Your task to perform on an android device: toggle improve location accuracy Image 0: 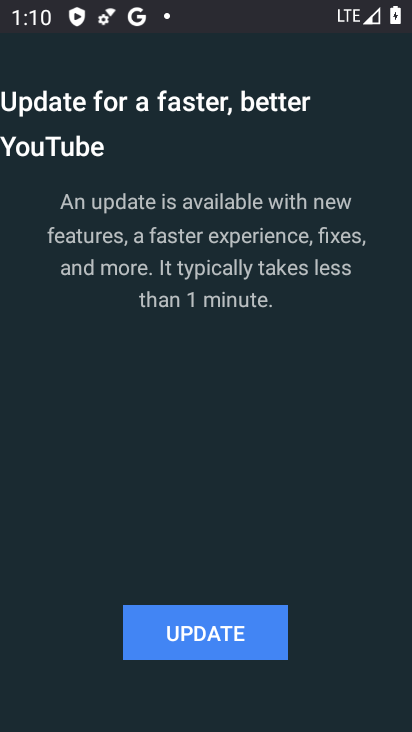
Step 0: press home button
Your task to perform on an android device: toggle improve location accuracy Image 1: 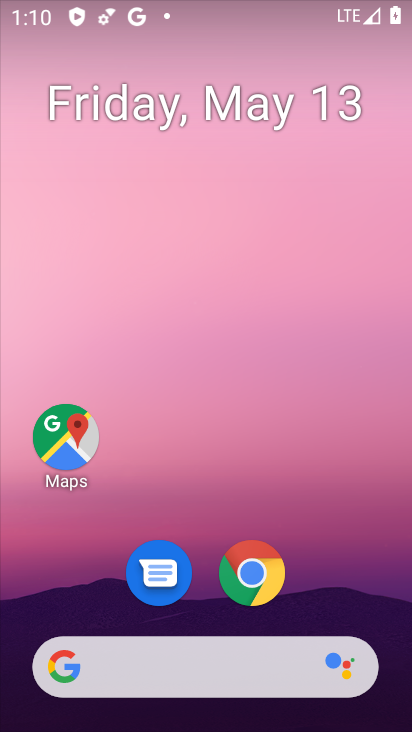
Step 1: drag from (197, 614) to (258, 20)
Your task to perform on an android device: toggle improve location accuracy Image 2: 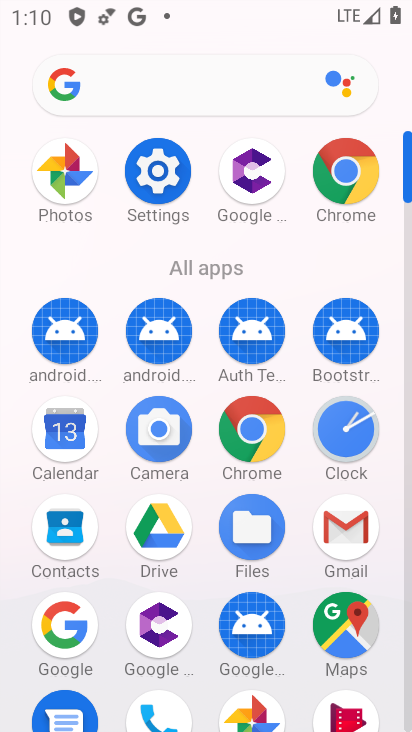
Step 2: click (151, 175)
Your task to perform on an android device: toggle improve location accuracy Image 3: 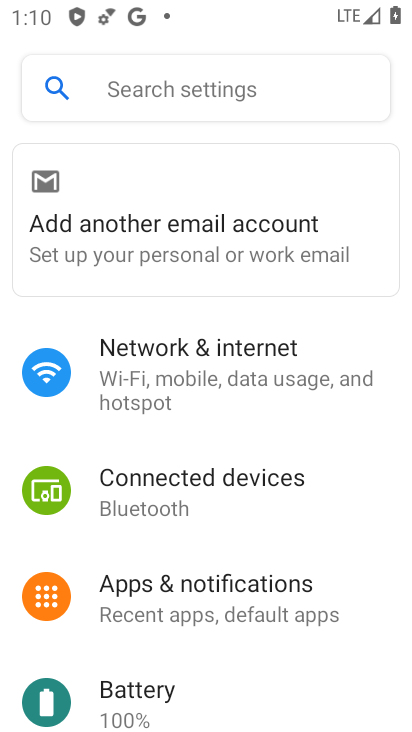
Step 3: drag from (191, 669) to (204, 306)
Your task to perform on an android device: toggle improve location accuracy Image 4: 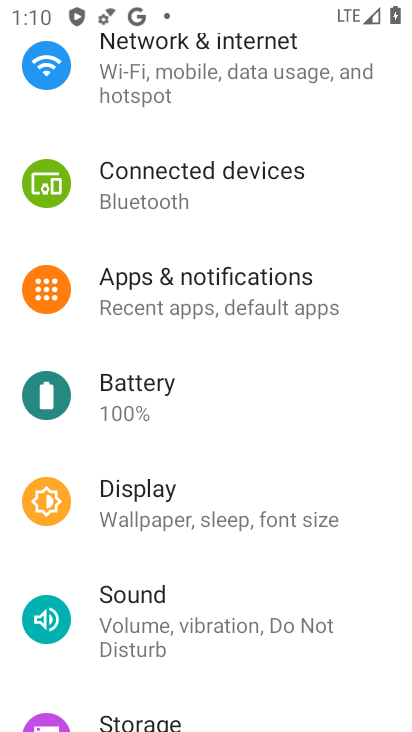
Step 4: drag from (164, 662) to (177, 322)
Your task to perform on an android device: toggle improve location accuracy Image 5: 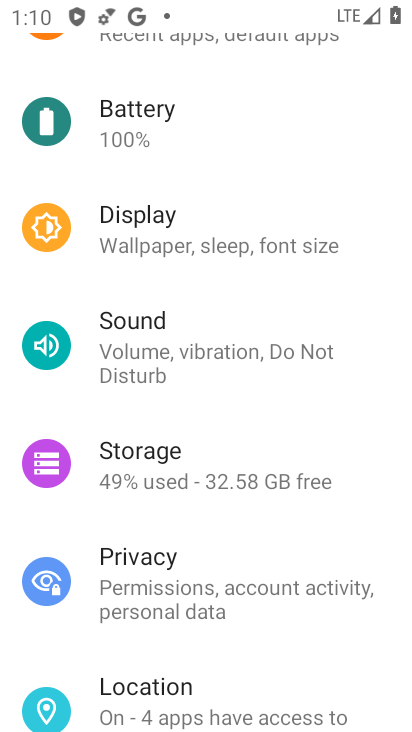
Step 5: click (161, 702)
Your task to perform on an android device: toggle improve location accuracy Image 6: 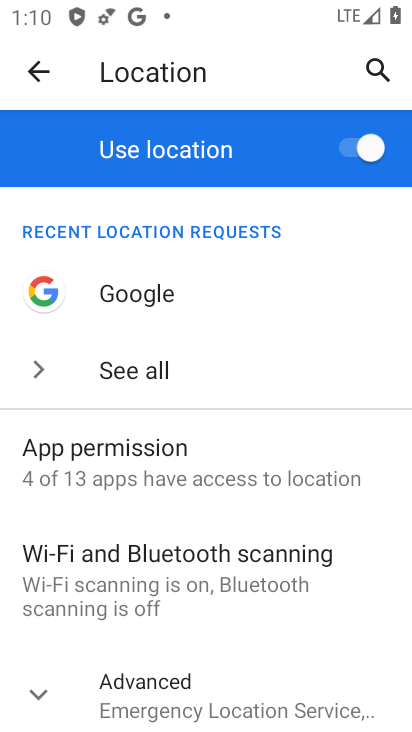
Step 6: drag from (225, 648) to (220, 228)
Your task to perform on an android device: toggle improve location accuracy Image 7: 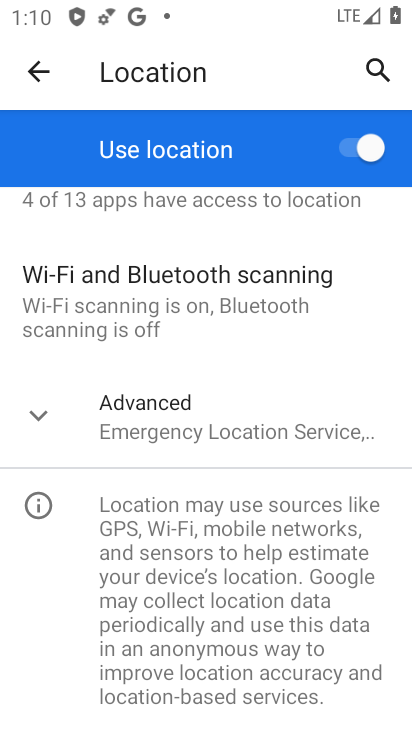
Step 7: click (173, 384)
Your task to perform on an android device: toggle improve location accuracy Image 8: 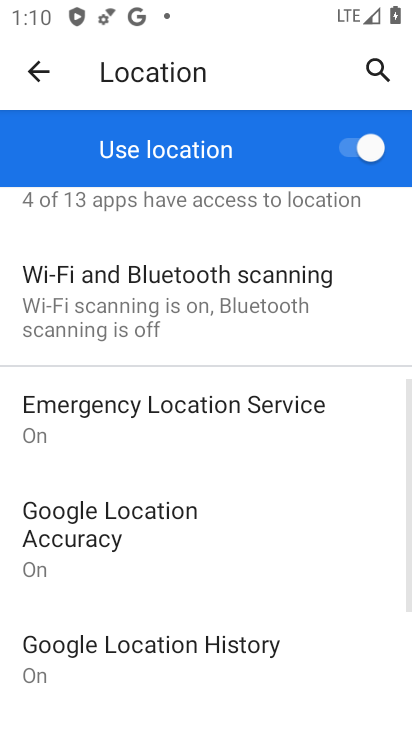
Step 8: drag from (212, 669) to (211, 374)
Your task to perform on an android device: toggle improve location accuracy Image 9: 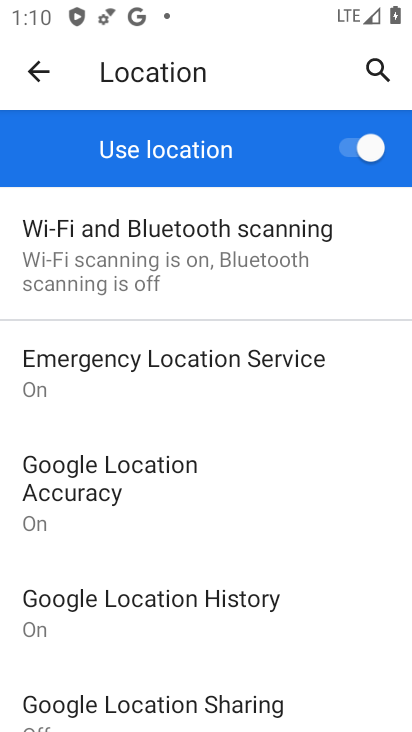
Step 9: click (81, 491)
Your task to perform on an android device: toggle improve location accuracy Image 10: 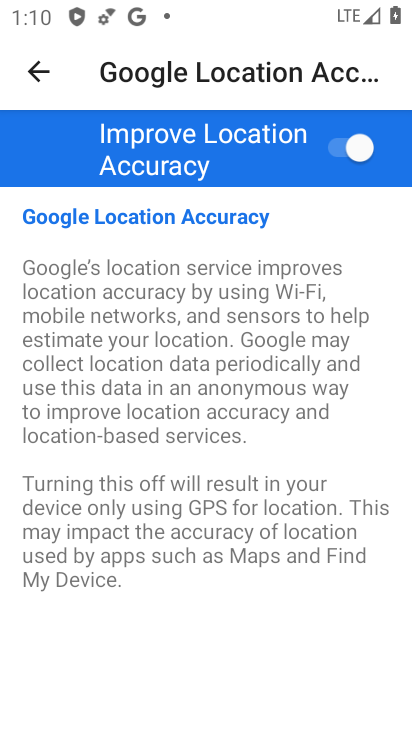
Step 10: click (353, 146)
Your task to perform on an android device: toggle improve location accuracy Image 11: 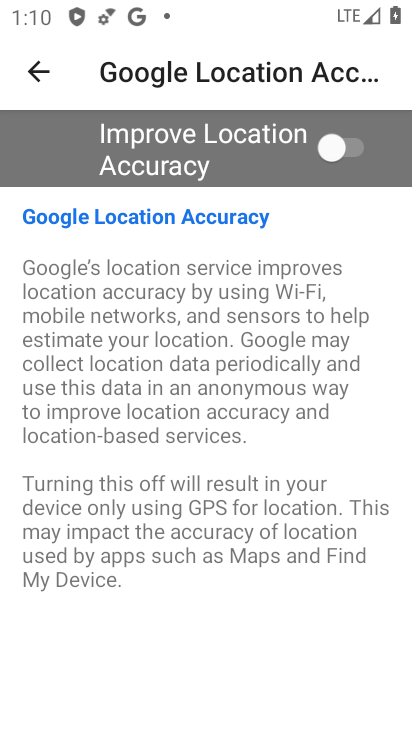
Step 11: task complete